Your task to perform on an android device: Check the weather Image 0: 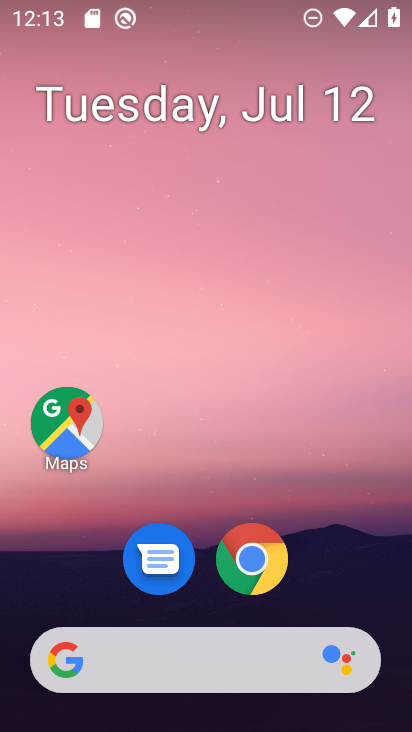
Step 0: click (158, 662)
Your task to perform on an android device: Check the weather Image 1: 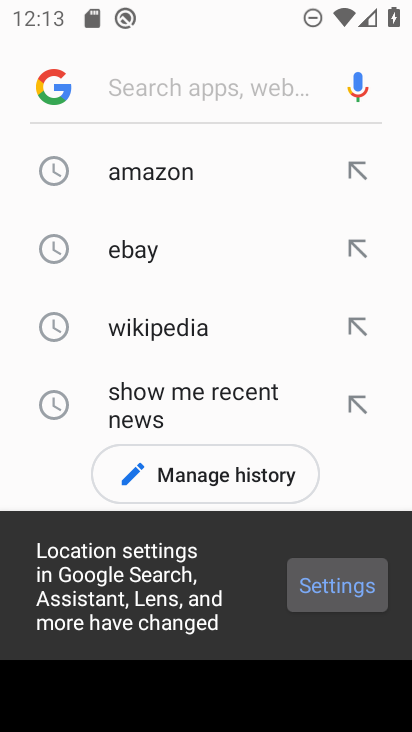
Step 1: click (148, 75)
Your task to perform on an android device: Check the weather Image 2: 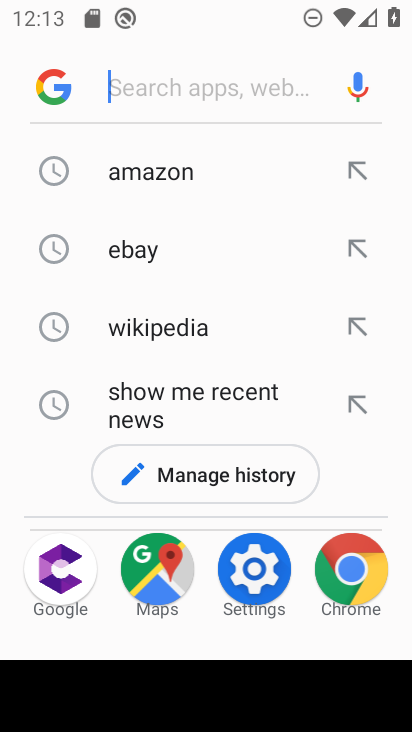
Step 2: type "weather"
Your task to perform on an android device: Check the weather Image 3: 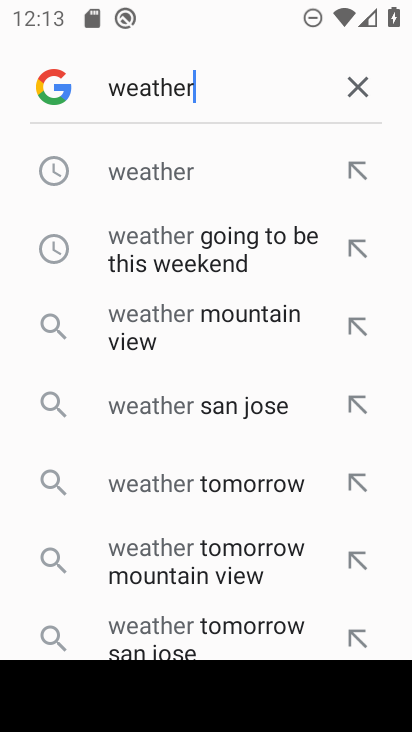
Step 3: click (151, 181)
Your task to perform on an android device: Check the weather Image 4: 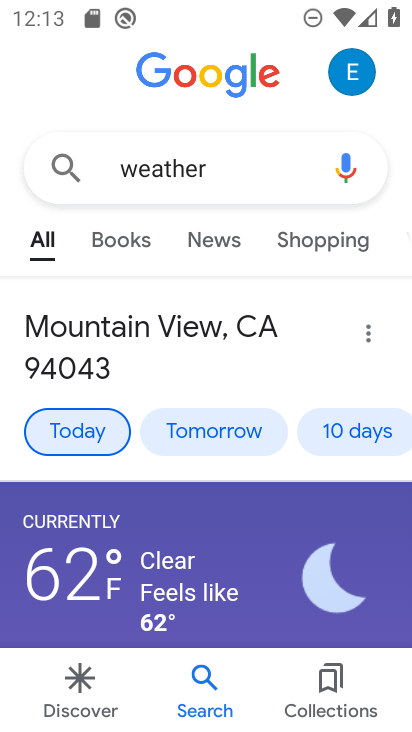
Step 4: task complete